Your task to perform on an android device: Show me popular videos on Youtube Image 0: 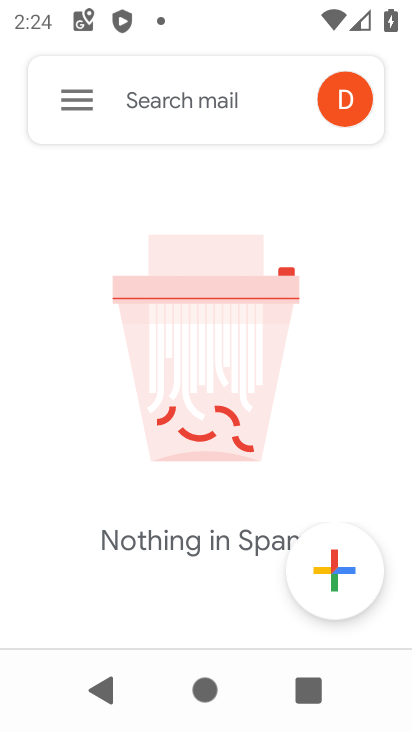
Step 0: press home button
Your task to perform on an android device: Show me popular videos on Youtube Image 1: 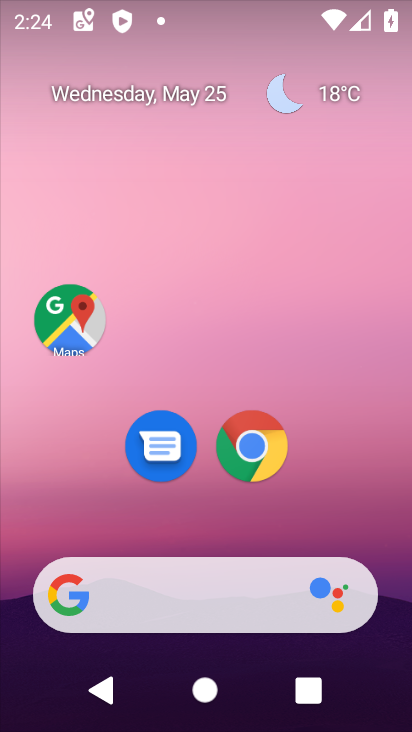
Step 1: drag from (239, 603) to (216, 143)
Your task to perform on an android device: Show me popular videos on Youtube Image 2: 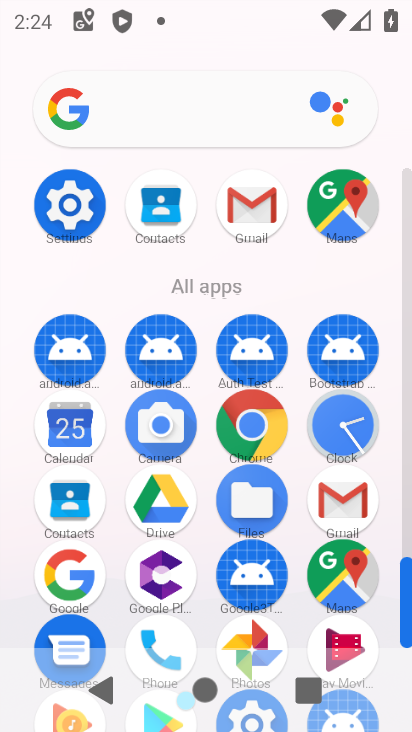
Step 2: drag from (193, 608) to (205, 126)
Your task to perform on an android device: Show me popular videos on Youtube Image 3: 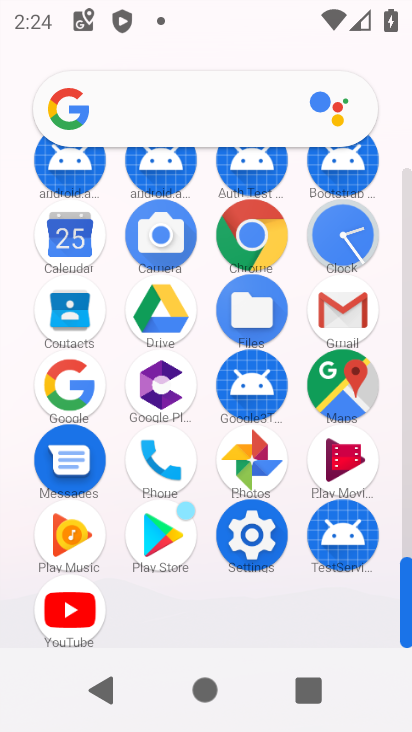
Step 3: click (70, 616)
Your task to perform on an android device: Show me popular videos on Youtube Image 4: 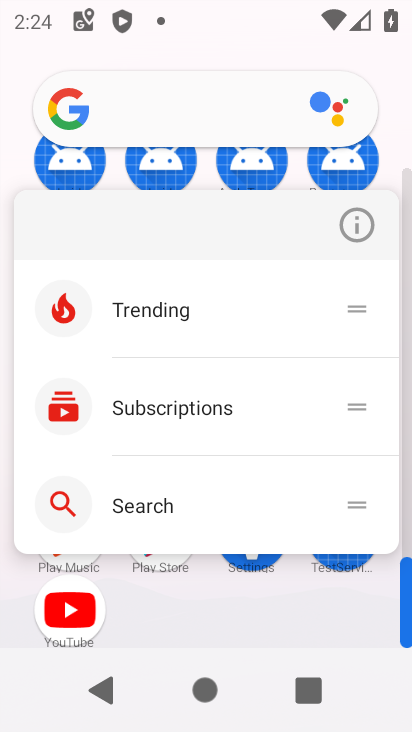
Step 4: click (64, 612)
Your task to perform on an android device: Show me popular videos on Youtube Image 5: 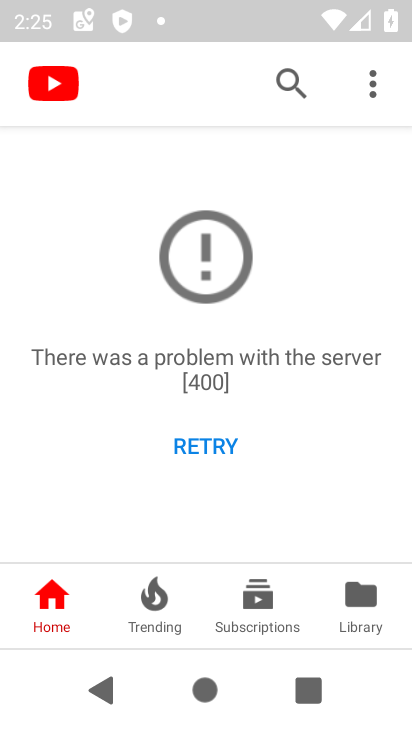
Step 5: click (145, 609)
Your task to perform on an android device: Show me popular videos on Youtube Image 6: 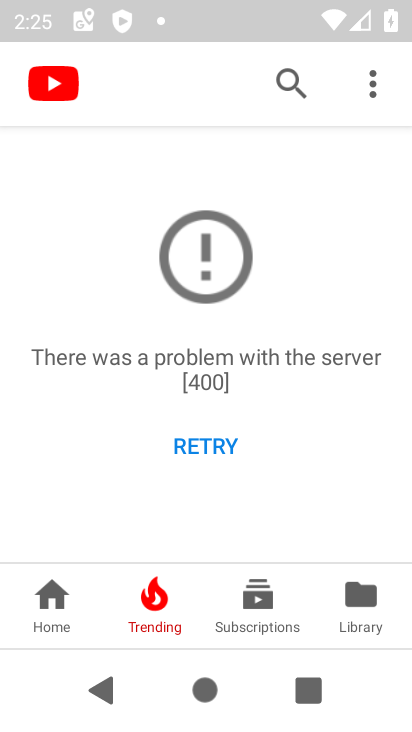
Step 6: task complete